Your task to perform on an android device: Search for Italian restaurants on Maps Image 0: 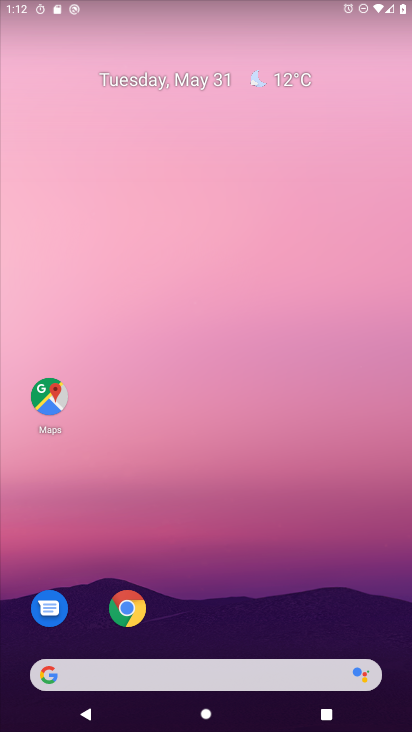
Step 0: click (48, 399)
Your task to perform on an android device: Search for Italian restaurants on Maps Image 1: 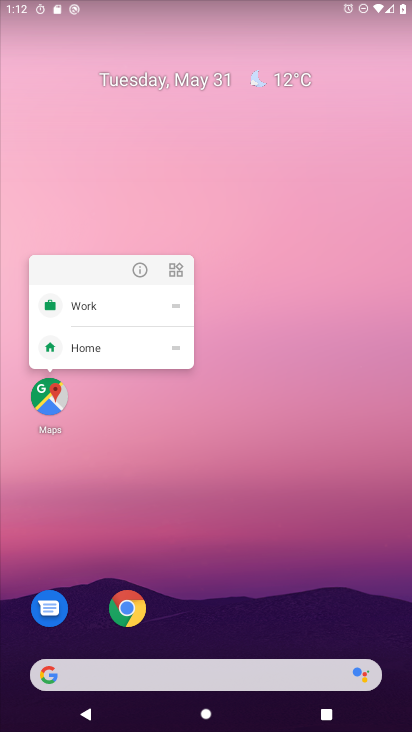
Step 1: click (48, 399)
Your task to perform on an android device: Search for Italian restaurants on Maps Image 2: 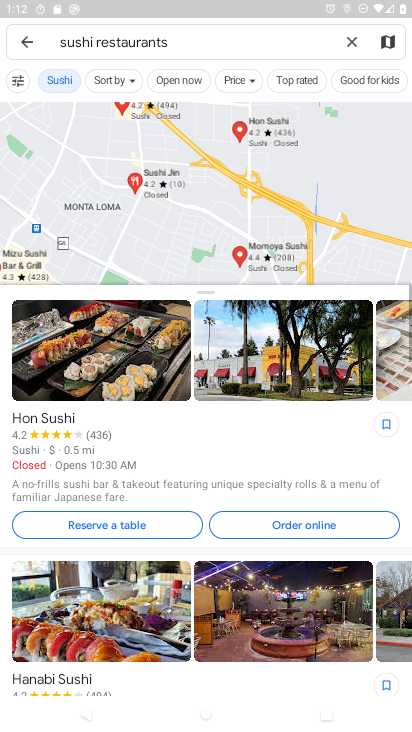
Step 2: click (355, 42)
Your task to perform on an android device: Search for Italian restaurants on Maps Image 3: 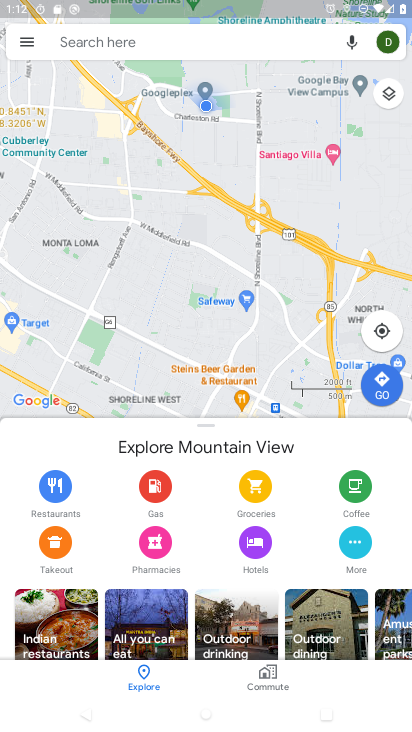
Step 3: click (69, 38)
Your task to perform on an android device: Search for Italian restaurants on Maps Image 4: 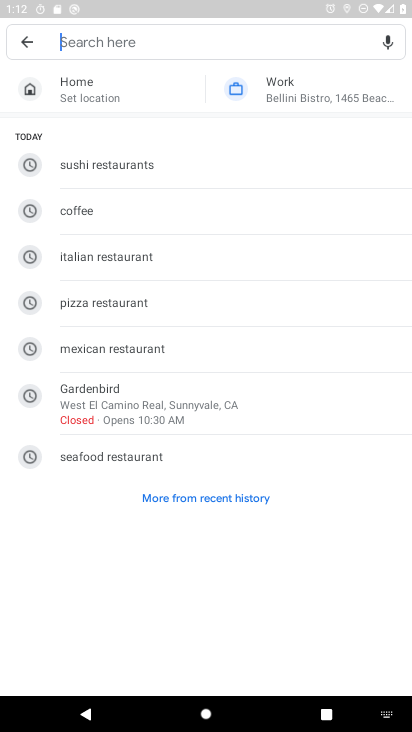
Step 4: type "italian restaurants"
Your task to perform on an android device: Search for Italian restaurants on Maps Image 5: 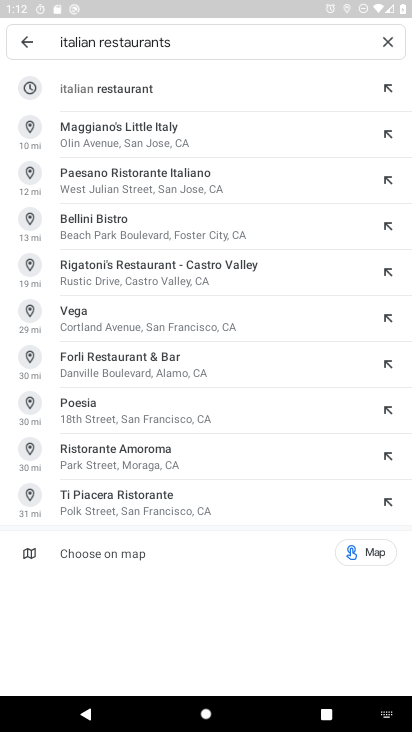
Step 5: click (134, 91)
Your task to perform on an android device: Search for Italian restaurants on Maps Image 6: 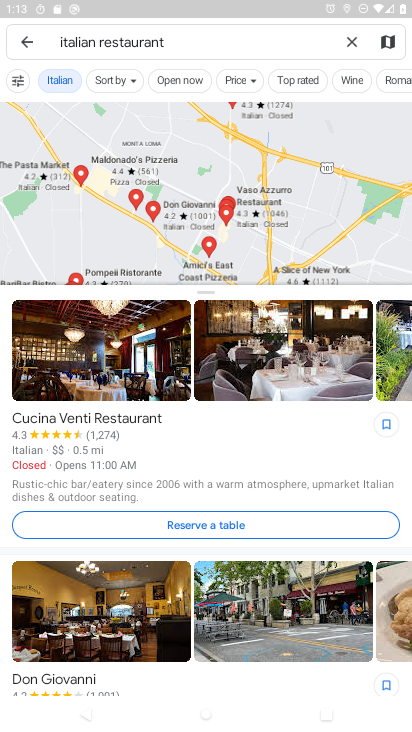
Step 6: task complete